Your task to perform on an android device: open app "Chime – Mobile Banking" (install if not already installed) Image 0: 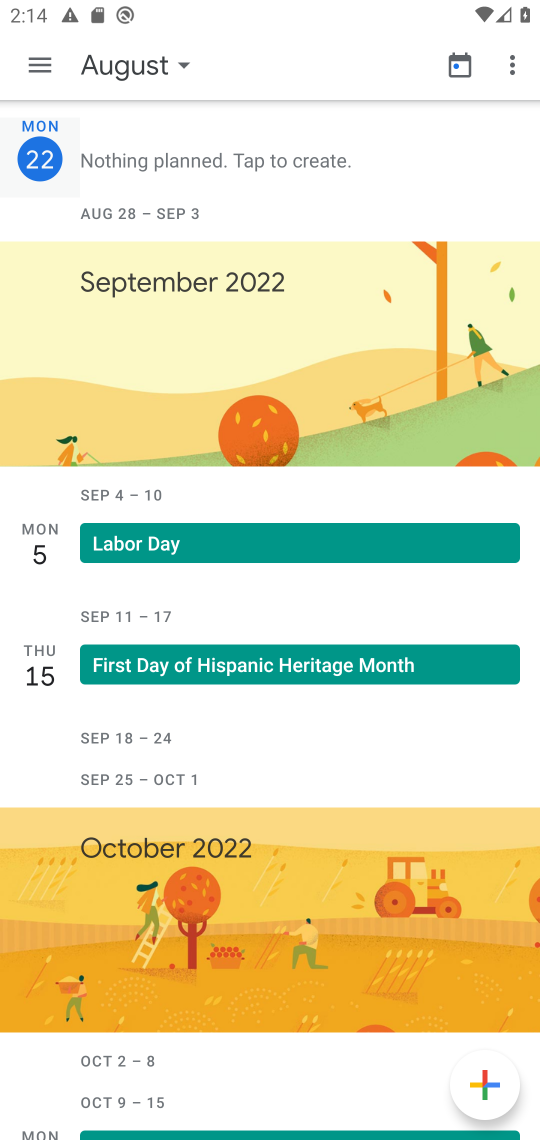
Step 0: press home button
Your task to perform on an android device: open app "Chime – Mobile Banking" (install if not already installed) Image 1: 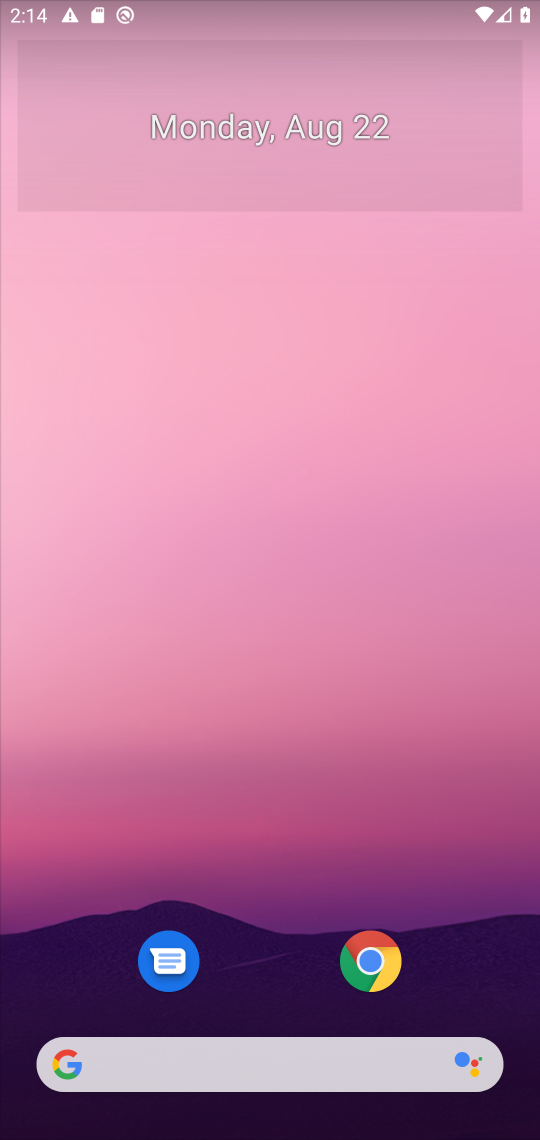
Step 1: press home button
Your task to perform on an android device: open app "Chime – Mobile Banking" (install if not already installed) Image 2: 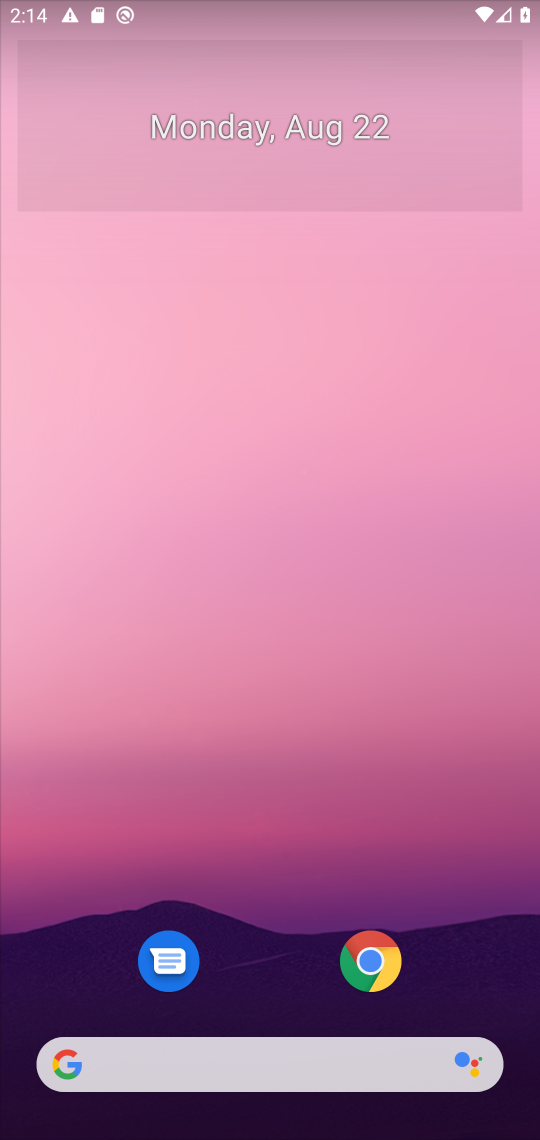
Step 2: drag from (473, 920) to (468, 192)
Your task to perform on an android device: open app "Chime – Mobile Banking" (install if not already installed) Image 3: 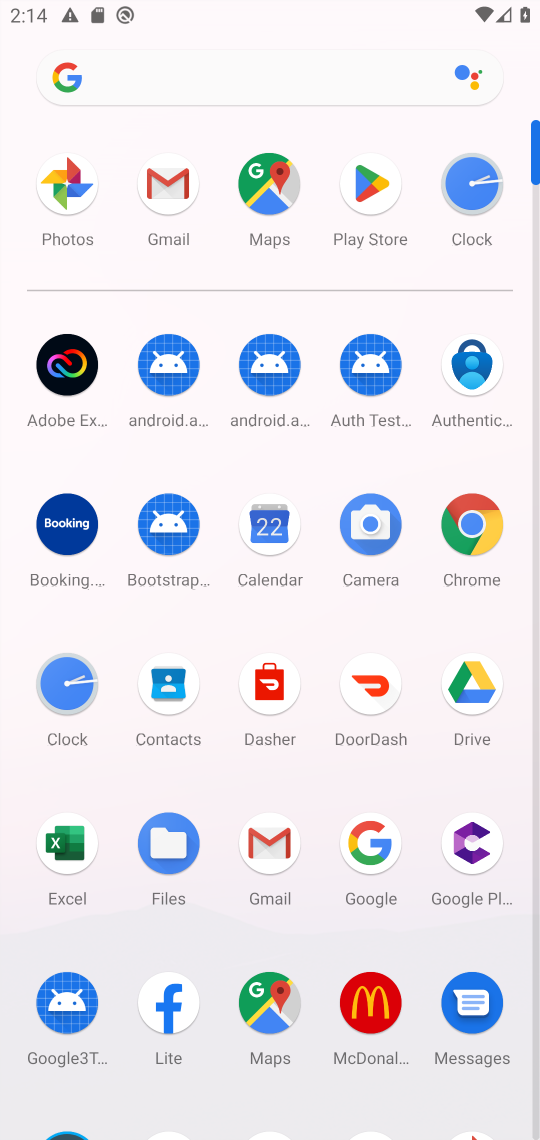
Step 3: click (371, 179)
Your task to perform on an android device: open app "Chime – Mobile Banking" (install if not already installed) Image 4: 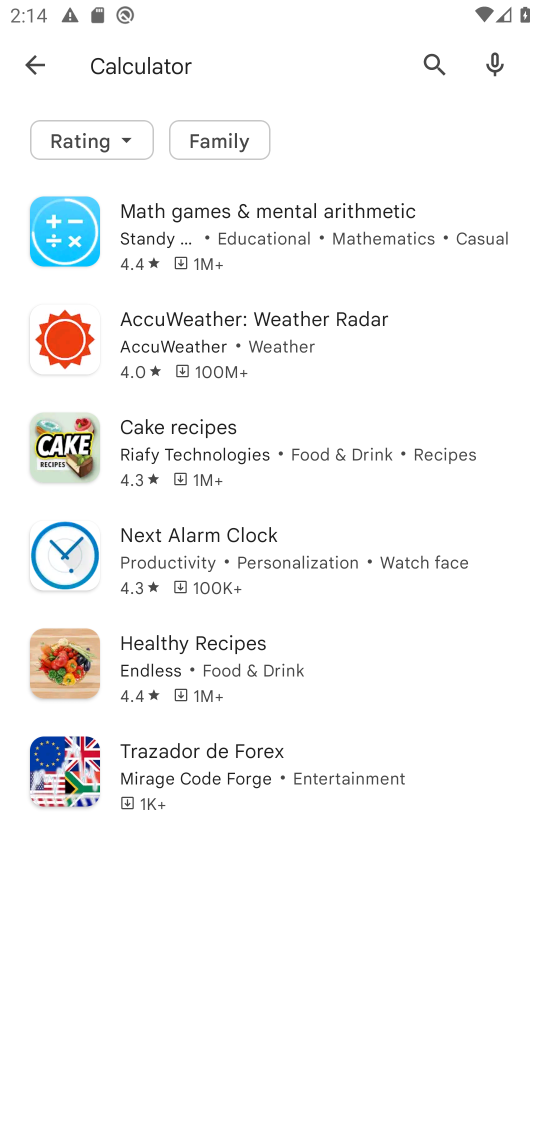
Step 4: press back button
Your task to perform on an android device: open app "Chime – Mobile Banking" (install if not already installed) Image 5: 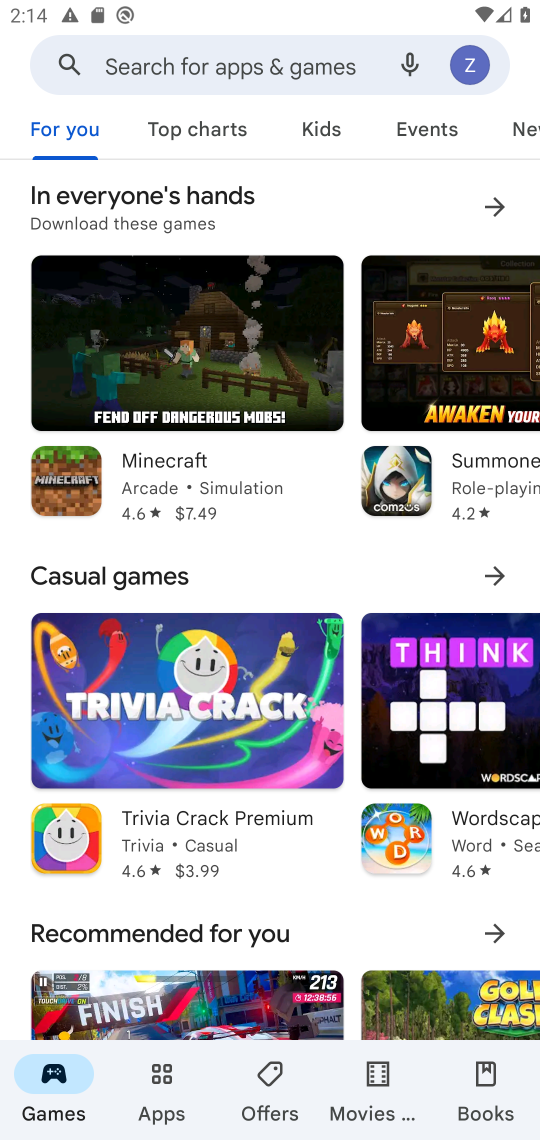
Step 5: click (281, 57)
Your task to perform on an android device: open app "Chime – Mobile Banking" (install if not already installed) Image 6: 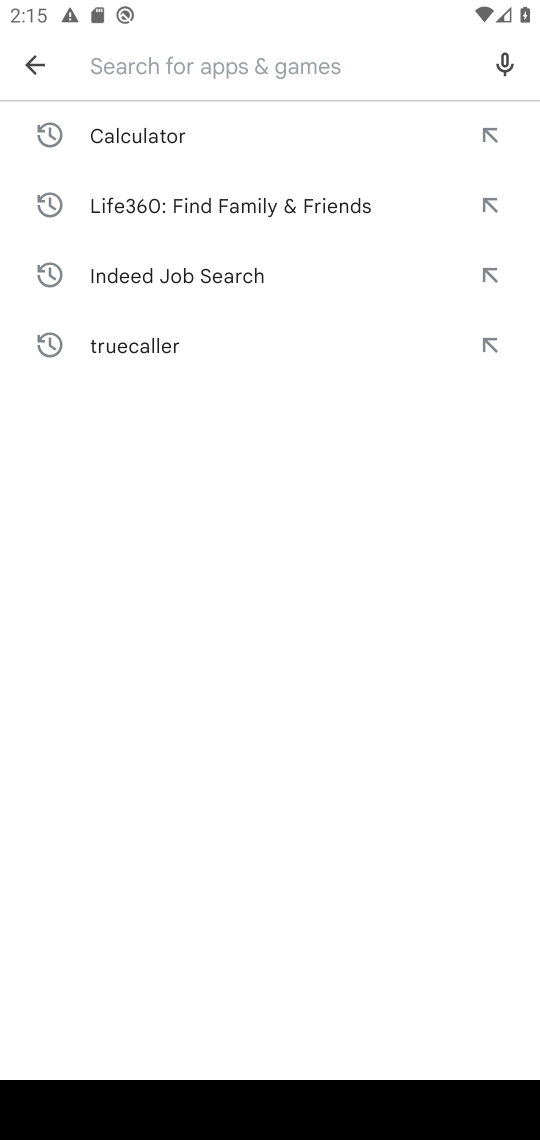
Step 6: type "Chime – Mobile Banking"
Your task to perform on an android device: open app "Chime – Mobile Banking" (install if not already installed) Image 7: 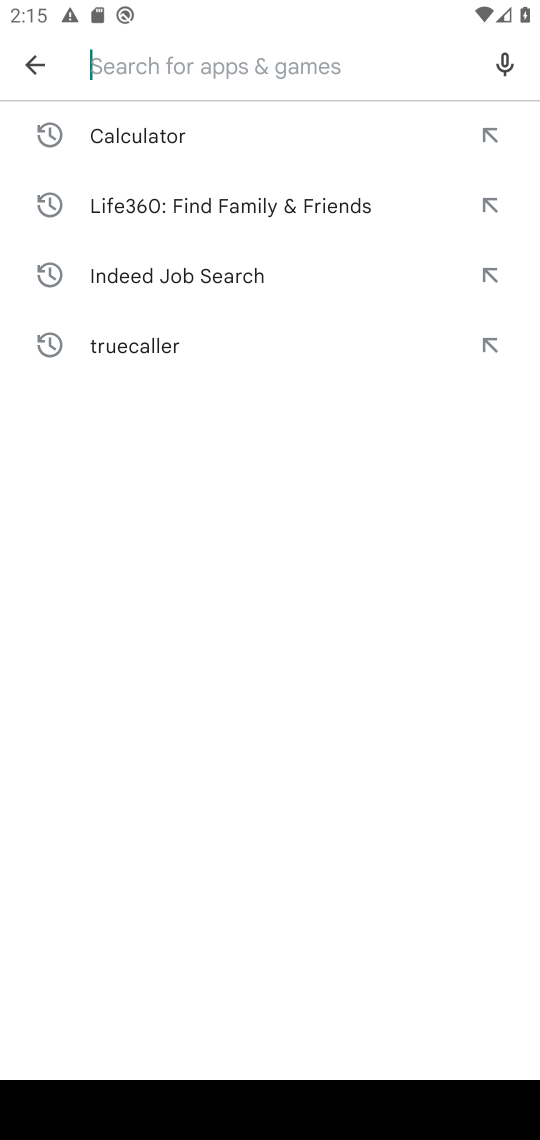
Step 7: press enter
Your task to perform on an android device: open app "Chime – Mobile Banking" (install if not already installed) Image 8: 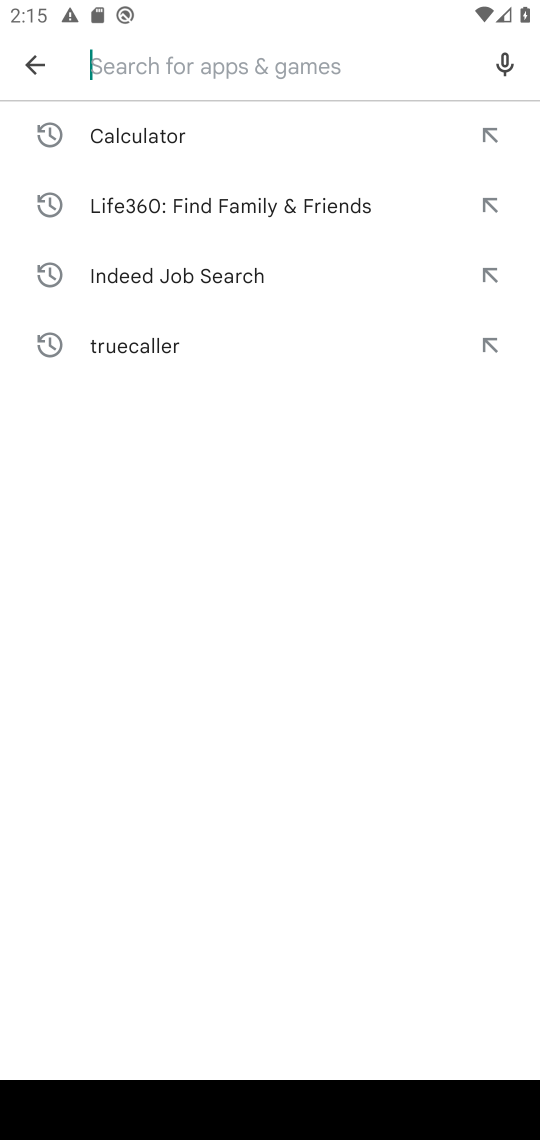
Step 8: task complete